Your task to perform on an android device: Open Yahoo.com Image 0: 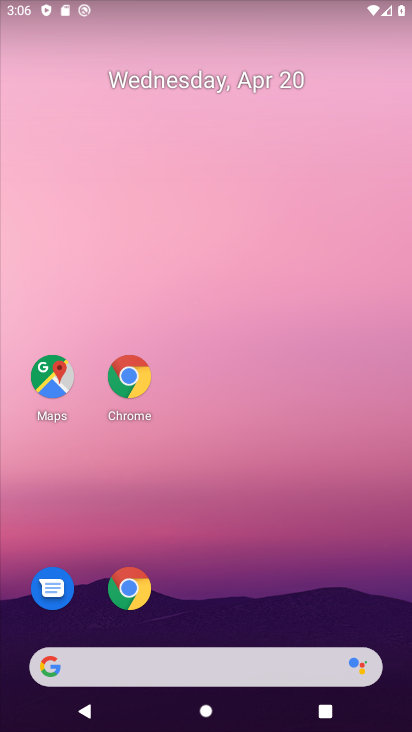
Step 0: drag from (219, 608) to (186, 104)
Your task to perform on an android device: Open Yahoo.com Image 1: 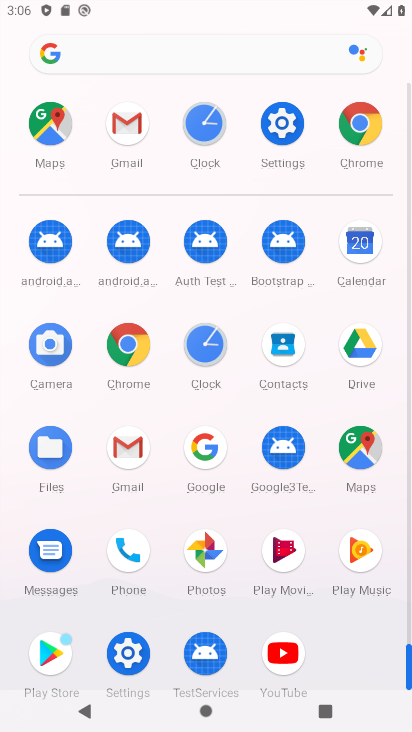
Step 1: click (121, 346)
Your task to perform on an android device: Open Yahoo.com Image 2: 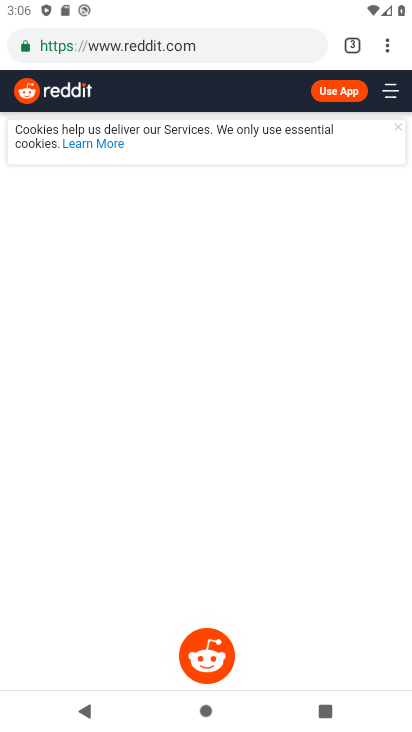
Step 2: click (239, 45)
Your task to perform on an android device: Open Yahoo.com Image 3: 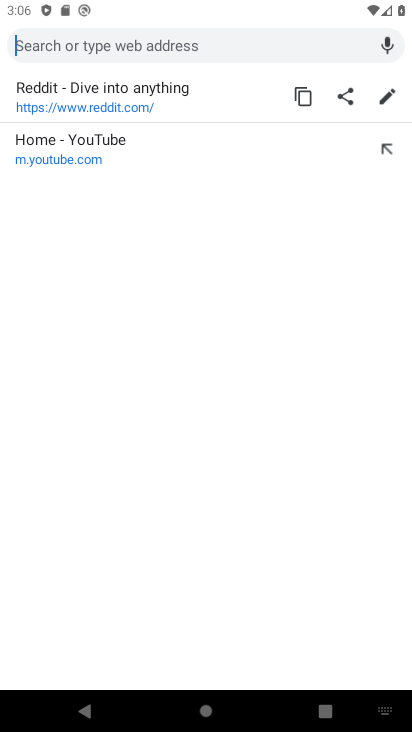
Step 3: type "yahoo.com"
Your task to perform on an android device: Open Yahoo.com Image 4: 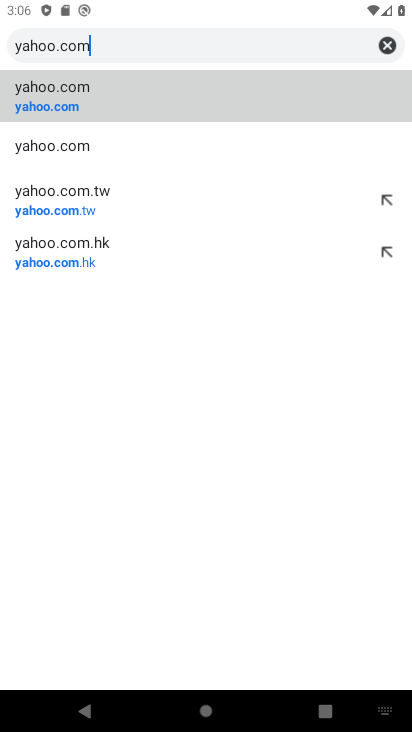
Step 4: click (137, 101)
Your task to perform on an android device: Open Yahoo.com Image 5: 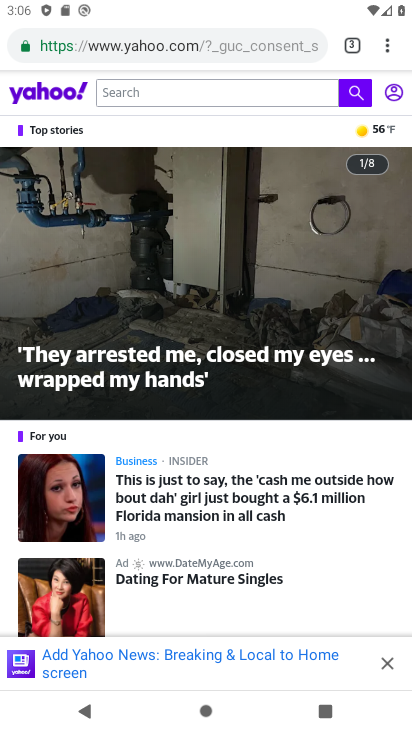
Step 5: task complete